Your task to perform on an android device: Go to Reddit.com Image 0: 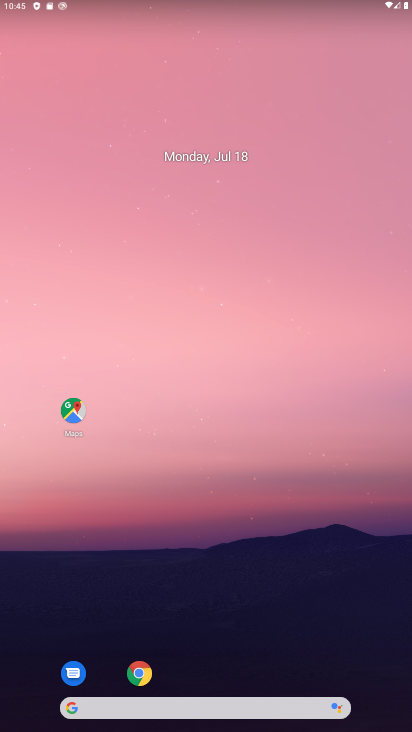
Step 0: press home button
Your task to perform on an android device: Go to Reddit.com Image 1: 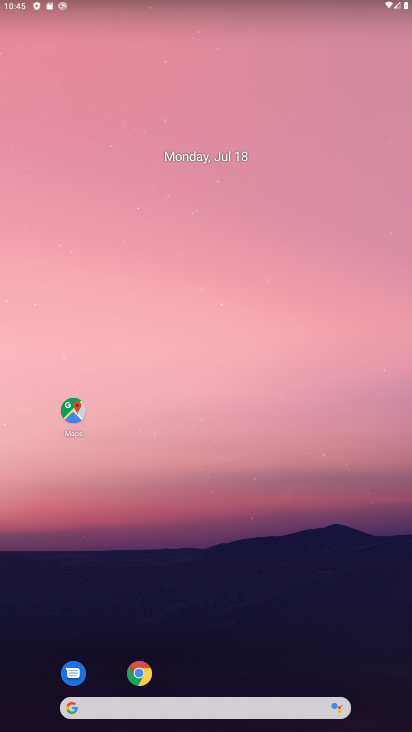
Step 1: drag from (237, 541) to (243, 21)
Your task to perform on an android device: Go to Reddit.com Image 2: 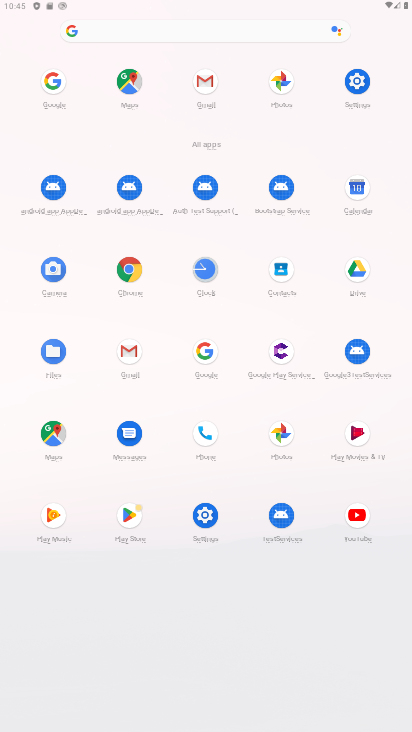
Step 2: drag from (212, 216) to (209, 93)
Your task to perform on an android device: Go to Reddit.com Image 3: 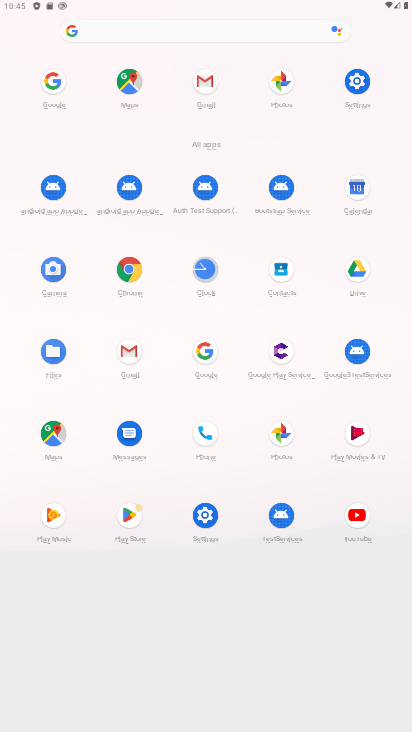
Step 3: click (124, 264)
Your task to perform on an android device: Go to Reddit.com Image 4: 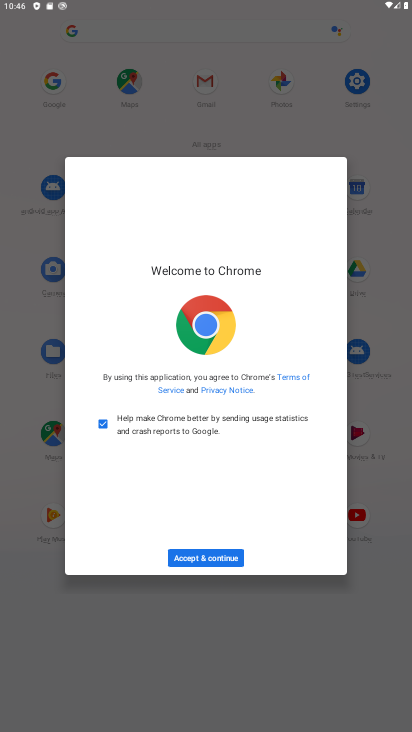
Step 4: click (213, 553)
Your task to perform on an android device: Go to Reddit.com Image 5: 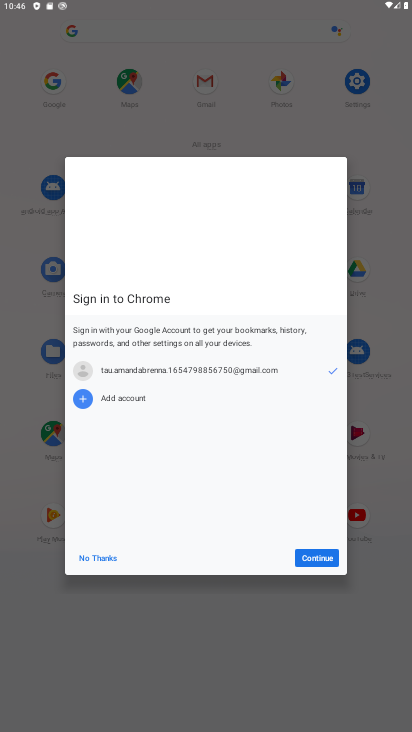
Step 5: click (311, 551)
Your task to perform on an android device: Go to Reddit.com Image 6: 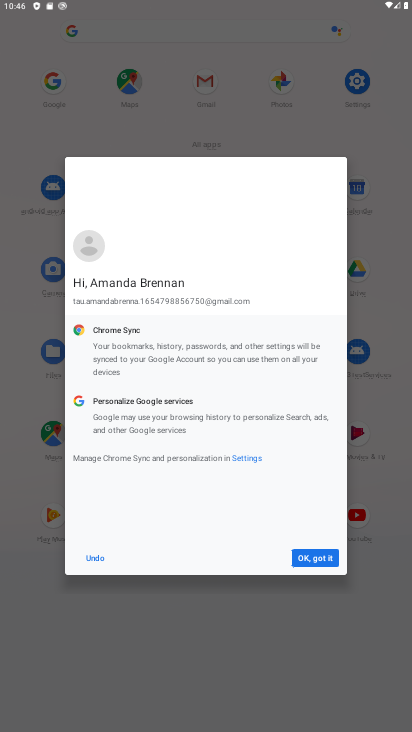
Step 6: click (312, 551)
Your task to perform on an android device: Go to Reddit.com Image 7: 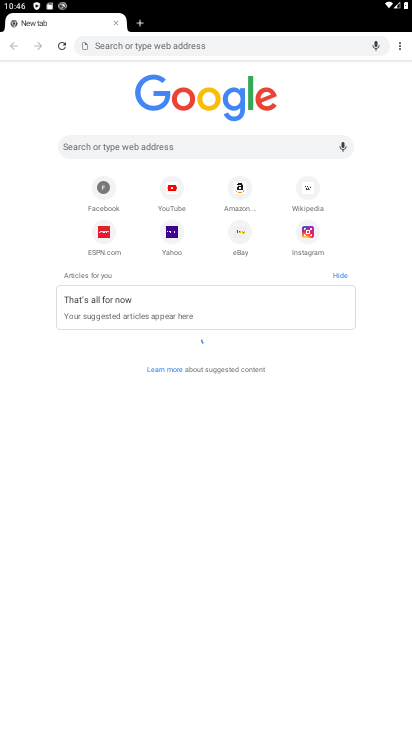
Step 7: click (152, 143)
Your task to perform on an android device: Go to Reddit.com Image 8: 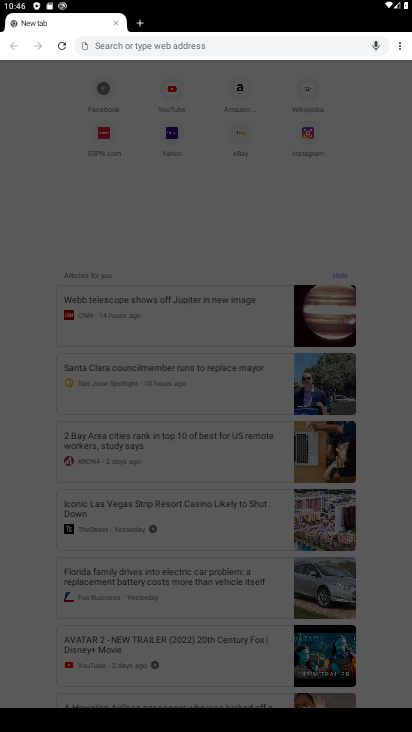
Step 8: type "reddit.com"
Your task to perform on an android device: Go to Reddit.com Image 9: 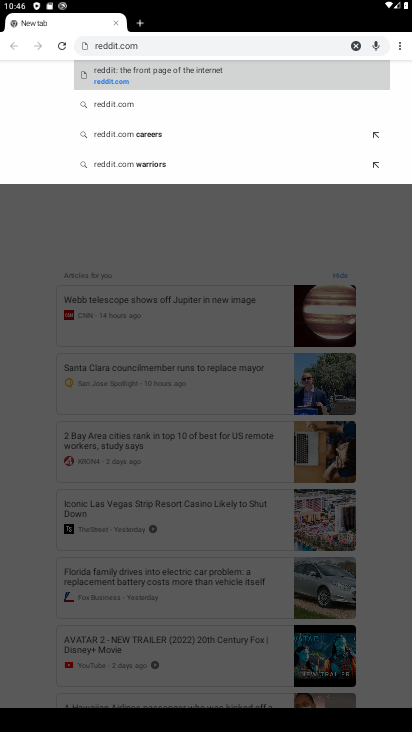
Step 9: click (141, 77)
Your task to perform on an android device: Go to Reddit.com Image 10: 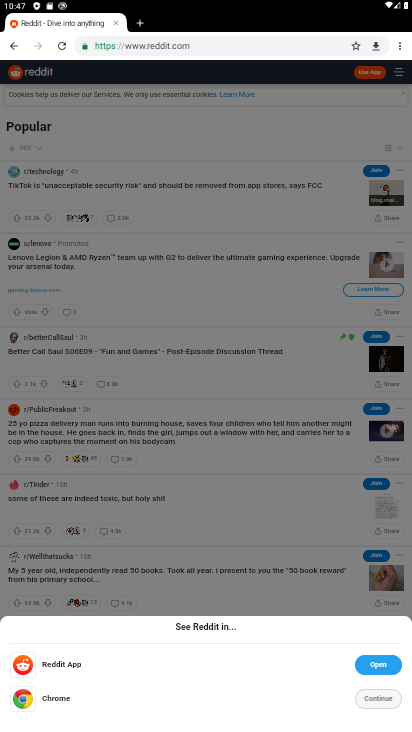
Step 10: click (373, 698)
Your task to perform on an android device: Go to Reddit.com Image 11: 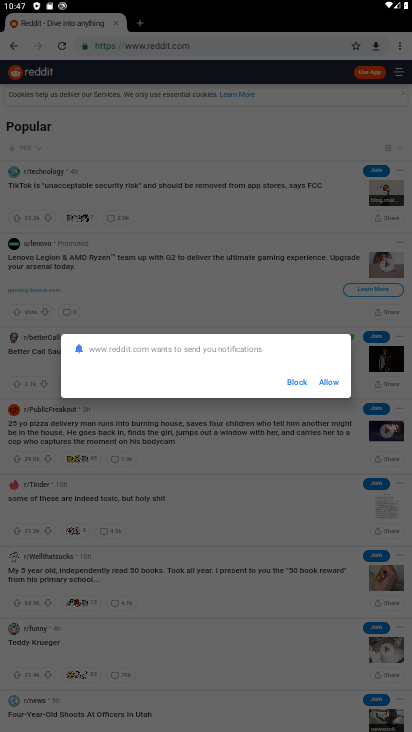
Step 11: click (331, 386)
Your task to perform on an android device: Go to Reddit.com Image 12: 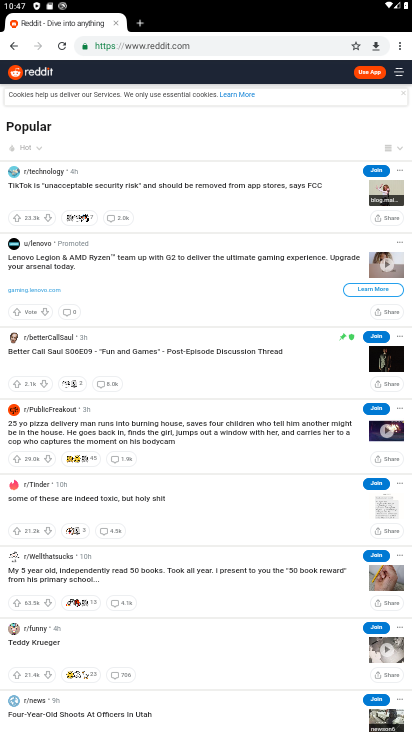
Step 12: task complete